Your task to perform on an android device: When is my next appointment? Image 0: 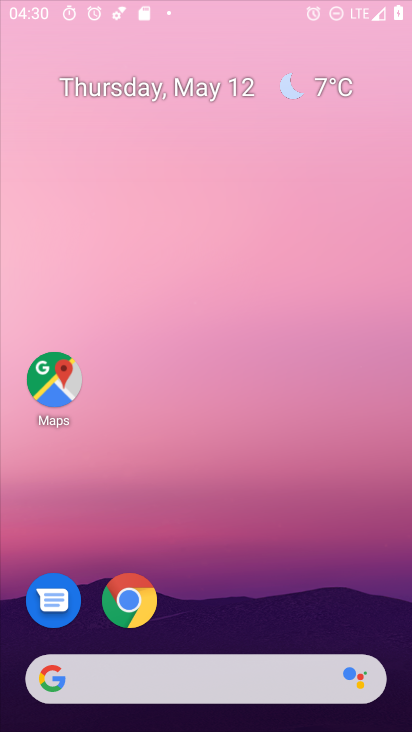
Step 0: drag from (223, 723) to (225, 93)
Your task to perform on an android device: When is my next appointment? Image 1: 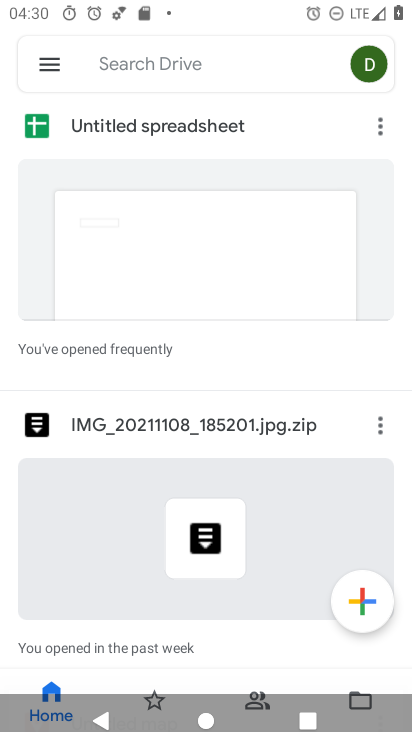
Step 1: press home button
Your task to perform on an android device: When is my next appointment? Image 2: 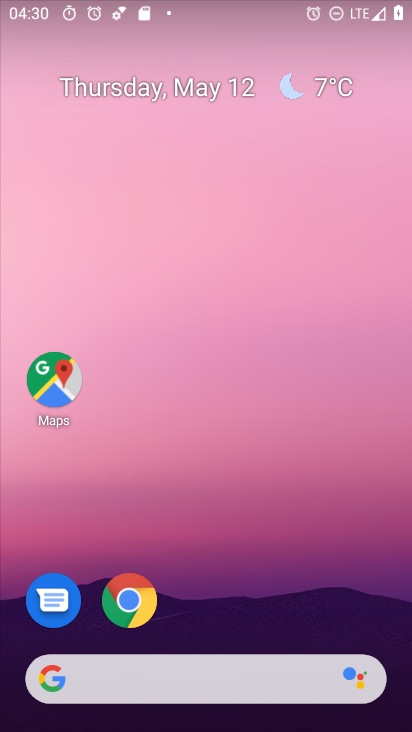
Step 2: drag from (201, 726) to (204, 165)
Your task to perform on an android device: When is my next appointment? Image 3: 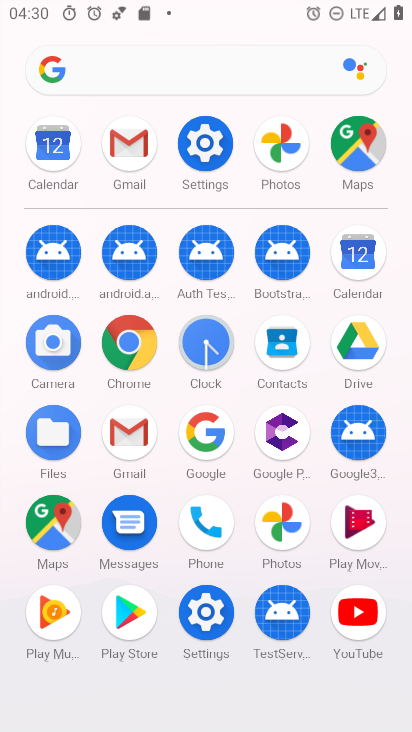
Step 3: click (360, 266)
Your task to perform on an android device: When is my next appointment? Image 4: 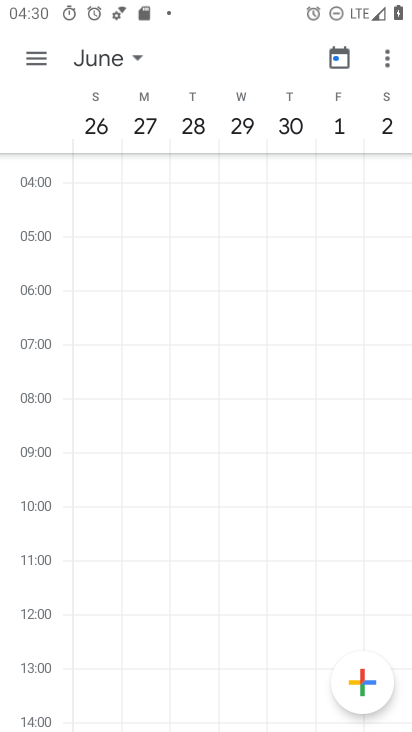
Step 4: click (93, 58)
Your task to perform on an android device: When is my next appointment? Image 5: 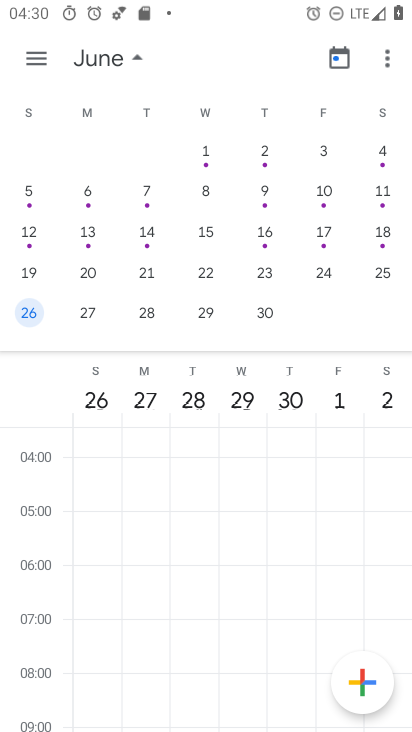
Step 5: drag from (44, 254) to (400, 240)
Your task to perform on an android device: When is my next appointment? Image 6: 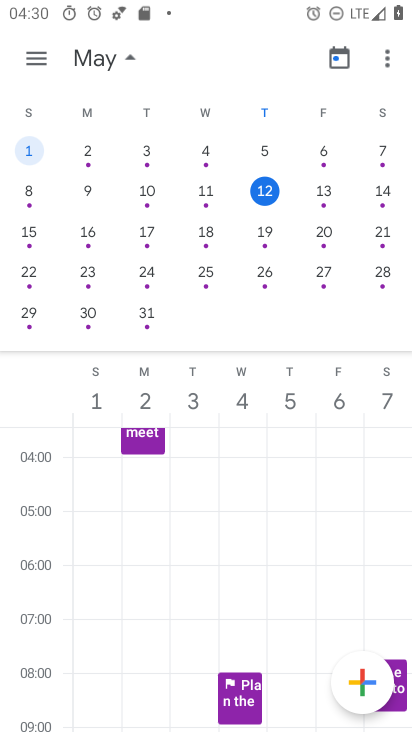
Step 6: click (325, 182)
Your task to perform on an android device: When is my next appointment? Image 7: 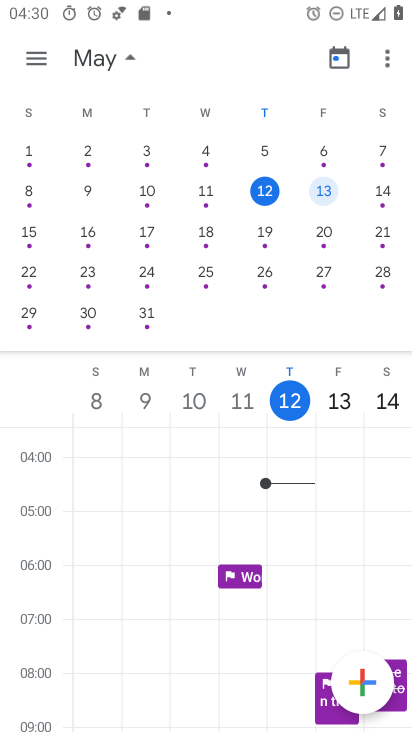
Step 7: task complete